Your task to perform on an android device: Go to battery settings Image 0: 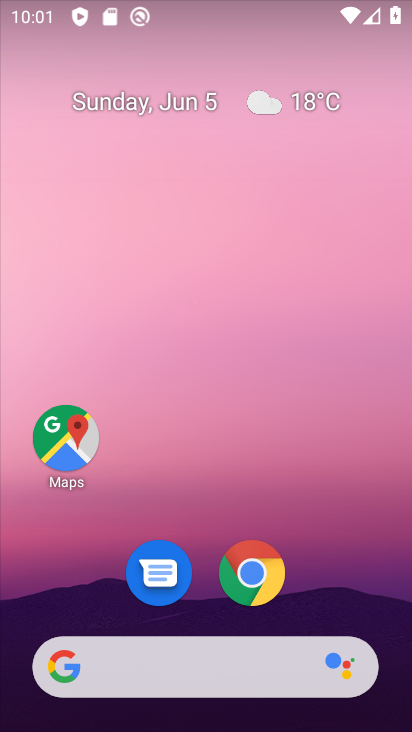
Step 0: drag from (213, 632) to (234, 149)
Your task to perform on an android device: Go to battery settings Image 1: 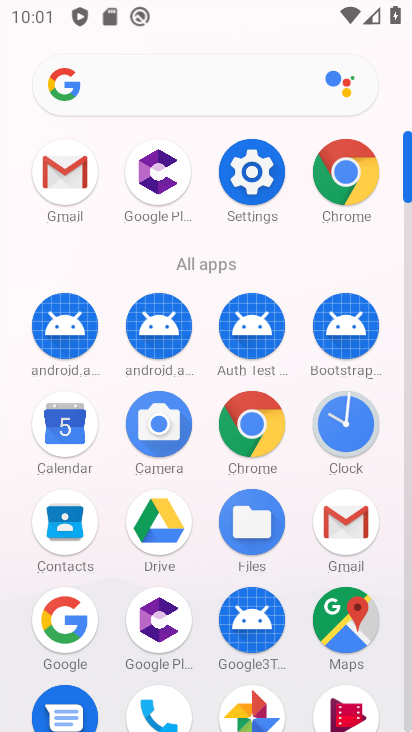
Step 1: click (256, 180)
Your task to perform on an android device: Go to battery settings Image 2: 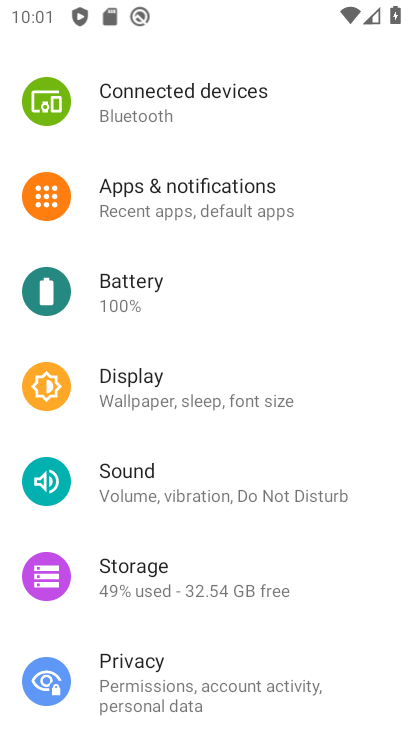
Step 2: drag from (186, 632) to (210, 286)
Your task to perform on an android device: Go to battery settings Image 3: 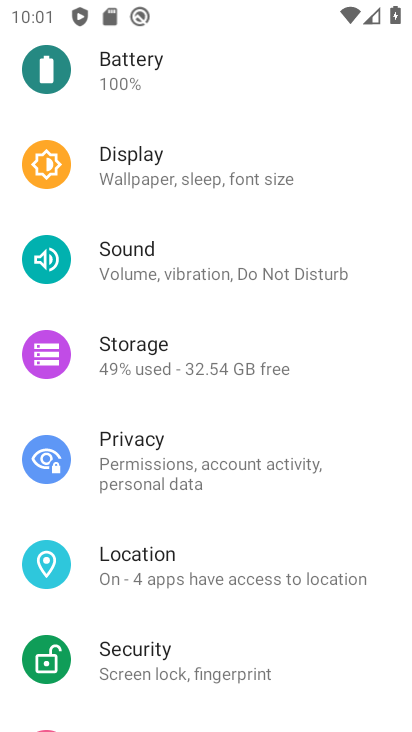
Step 3: click (151, 79)
Your task to perform on an android device: Go to battery settings Image 4: 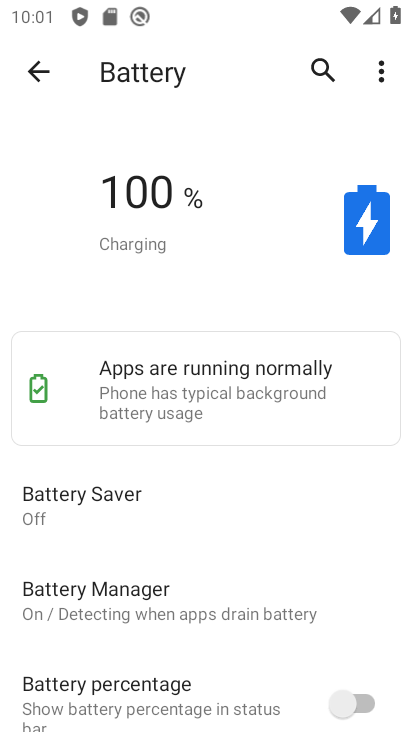
Step 4: task complete